Your task to perform on an android device: What's the news this evening? Image 0: 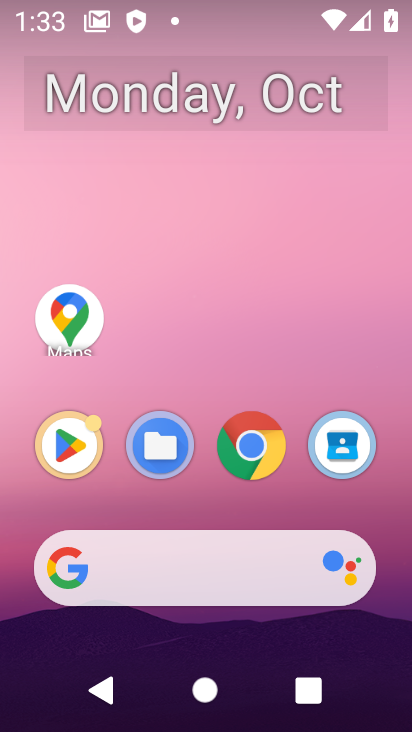
Step 0: click (146, 545)
Your task to perform on an android device: What's the news this evening? Image 1: 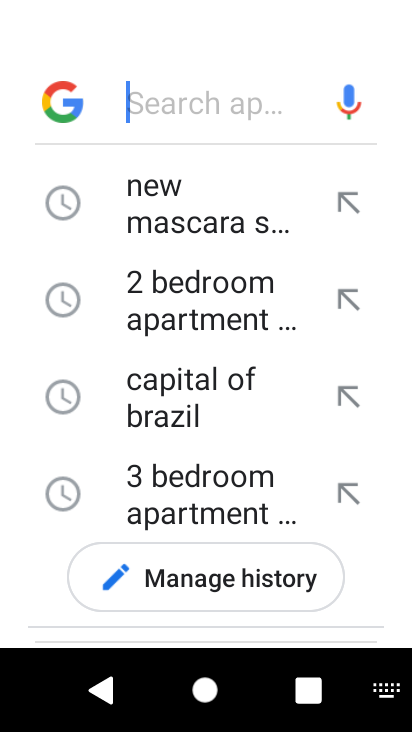
Step 1: type " news this evening"
Your task to perform on an android device: What's the news this evening? Image 2: 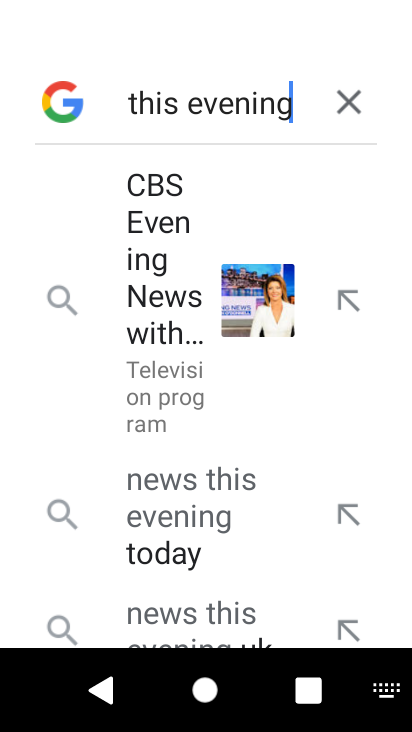
Step 2: type ""
Your task to perform on an android device: What's the news this evening? Image 3: 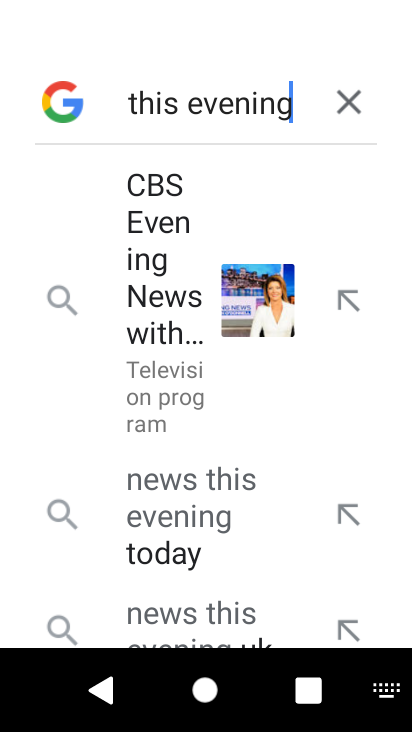
Step 3: click (192, 509)
Your task to perform on an android device: What's the news this evening? Image 4: 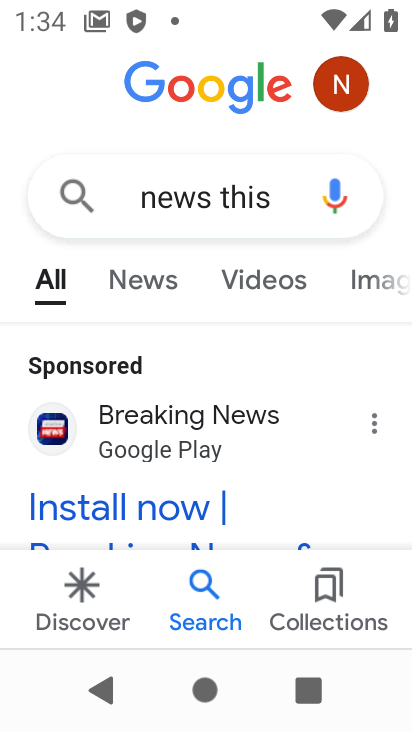
Step 4: click (158, 278)
Your task to perform on an android device: What's the news this evening? Image 5: 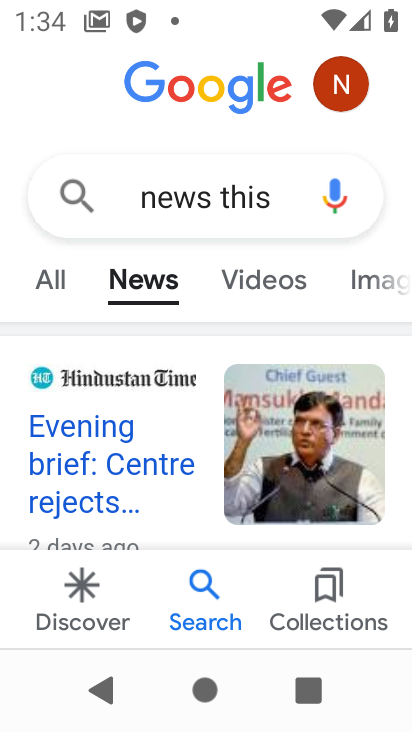
Step 5: task complete